Your task to perform on an android device: turn notification dots on Image 0: 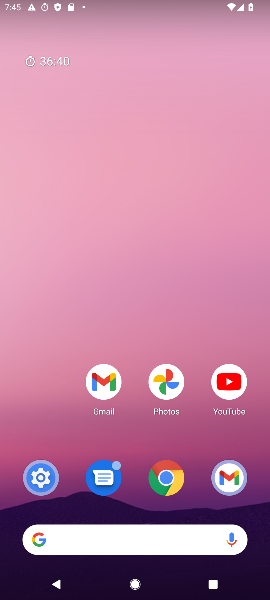
Step 0: drag from (135, 496) to (173, 150)
Your task to perform on an android device: turn notification dots on Image 1: 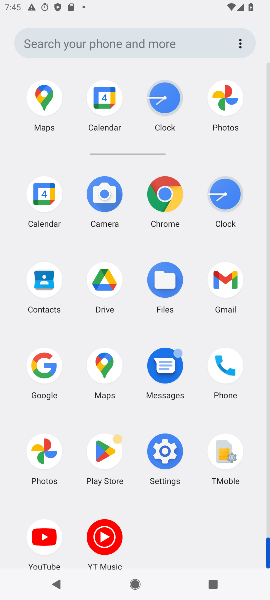
Step 1: click (158, 446)
Your task to perform on an android device: turn notification dots on Image 2: 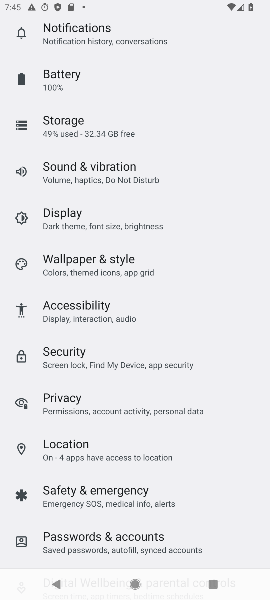
Step 2: drag from (129, 151) to (164, 521)
Your task to perform on an android device: turn notification dots on Image 3: 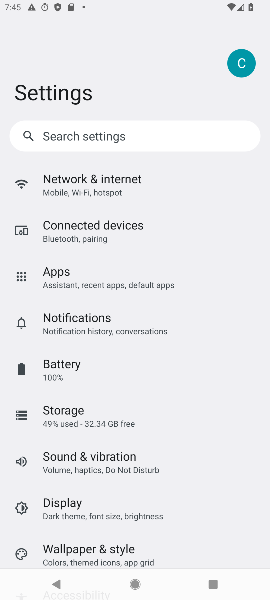
Step 3: click (101, 337)
Your task to perform on an android device: turn notification dots on Image 4: 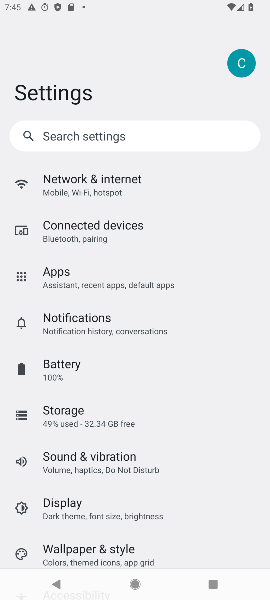
Step 4: click (101, 337)
Your task to perform on an android device: turn notification dots on Image 5: 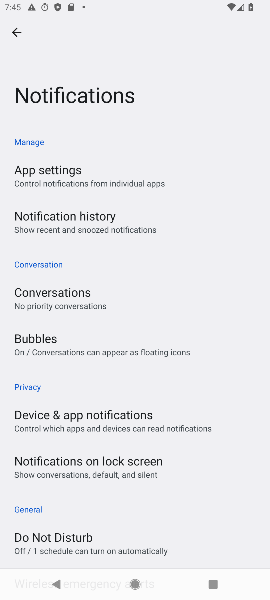
Step 5: task complete